Your task to perform on an android device: visit the assistant section in the google photos Image 0: 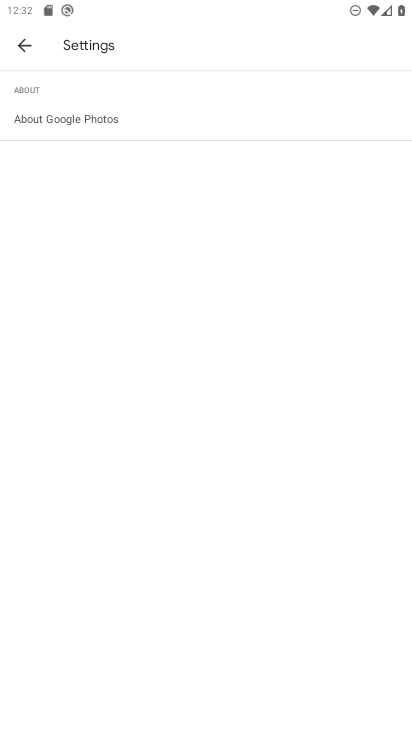
Step 0: press home button
Your task to perform on an android device: visit the assistant section in the google photos Image 1: 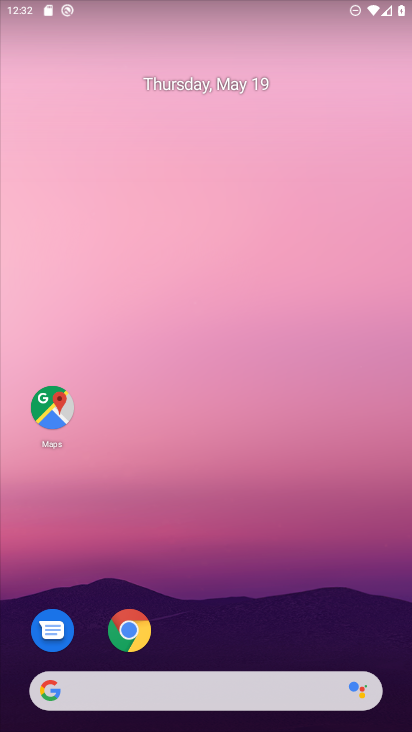
Step 1: drag from (257, 576) to (299, 153)
Your task to perform on an android device: visit the assistant section in the google photos Image 2: 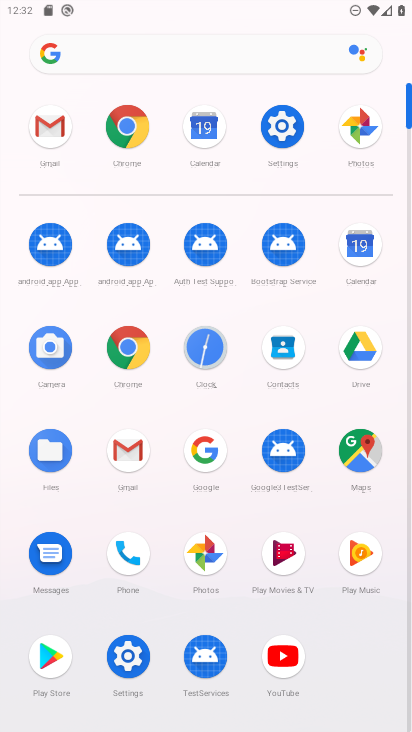
Step 2: click (204, 557)
Your task to perform on an android device: visit the assistant section in the google photos Image 3: 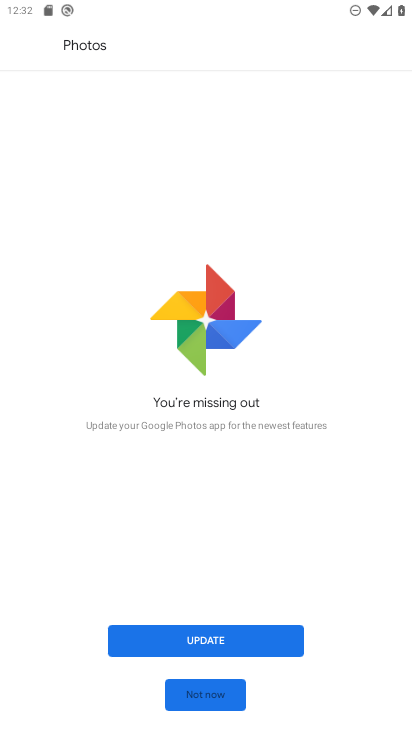
Step 3: click (236, 631)
Your task to perform on an android device: visit the assistant section in the google photos Image 4: 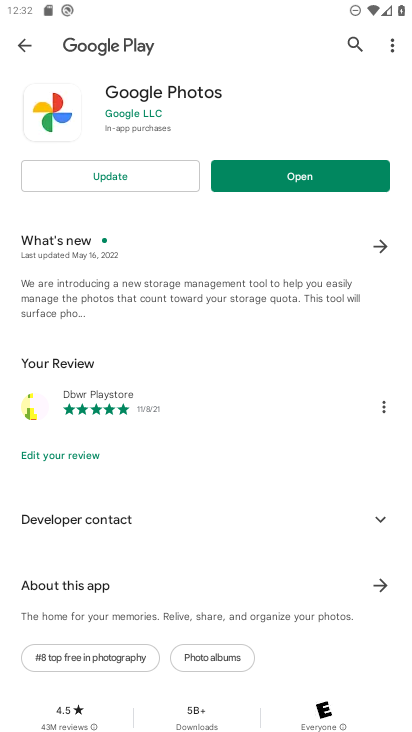
Step 4: click (162, 183)
Your task to perform on an android device: visit the assistant section in the google photos Image 5: 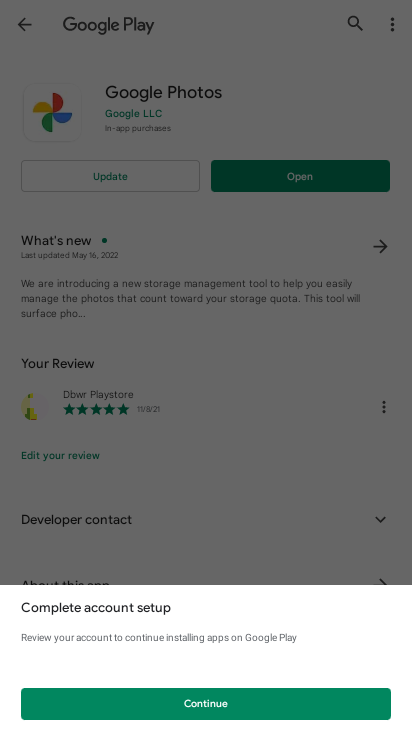
Step 5: click (223, 691)
Your task to perform on an android device: visit the assistant section in the google photos Image 6: 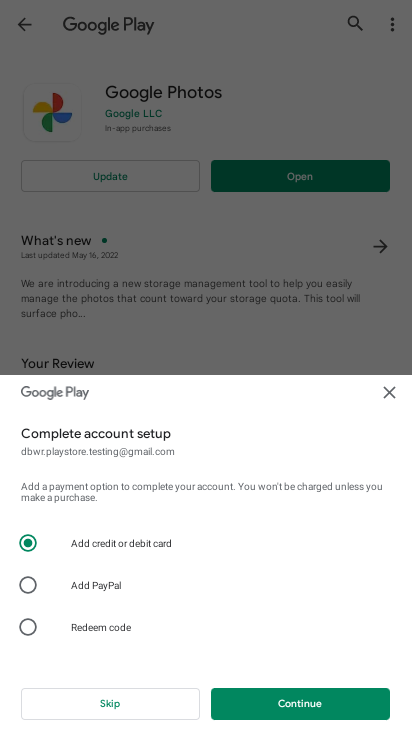
Step 6: click (387, 388)
Your task to perform on an android device: visit the assistant section in the google photos Image 7: 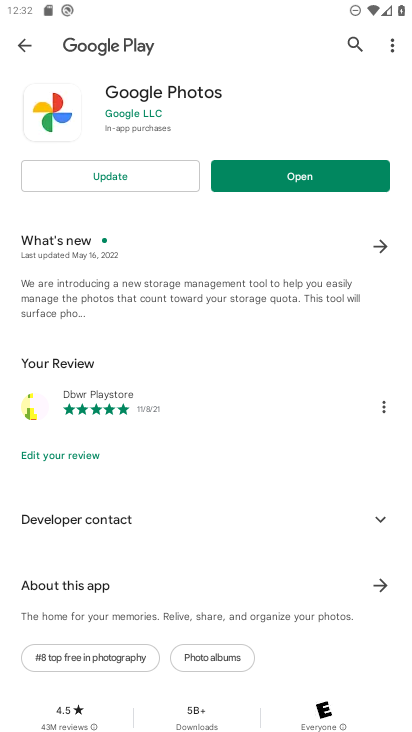
Step 7: click (123, 168)
Your task to perform on an android device: visit the assistant section in the google photos Image 8: 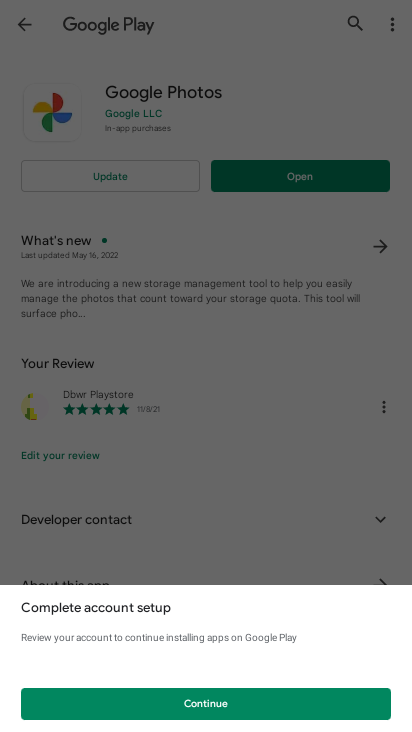
Step 8: click (295, 702)
Your task to perform on an android device: visit the assistant section in the google photos Image 9: 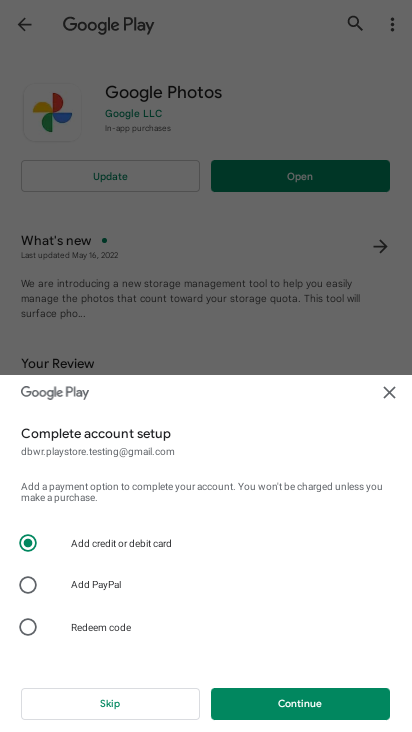
Step 9: click (144, 697)
Your task to perform on an android device: visit the assistant section in the google photos Image 10: 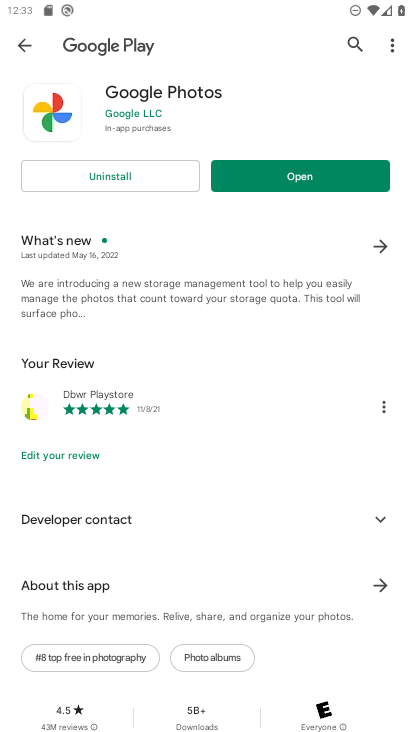
Step 10: click (320, 184)
Your task to perform on an android device: visit the assistant section in the google photos Image 11: 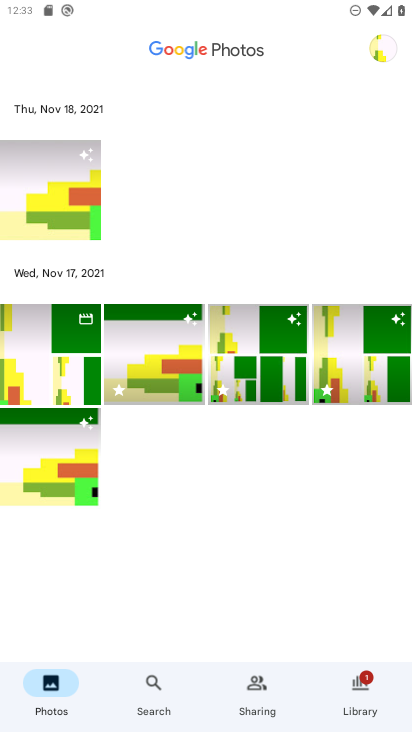
Step 11: click (142, 686)
Your task to perform on an android device: visit the assistant section in the google photos Image 12: 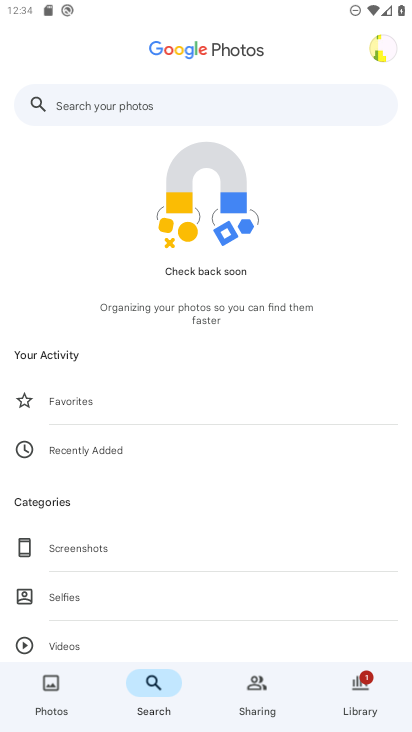
Step 12: click (140, 119)
Your task to perform on an android device: visit the assistant section in the google photos Image 13: 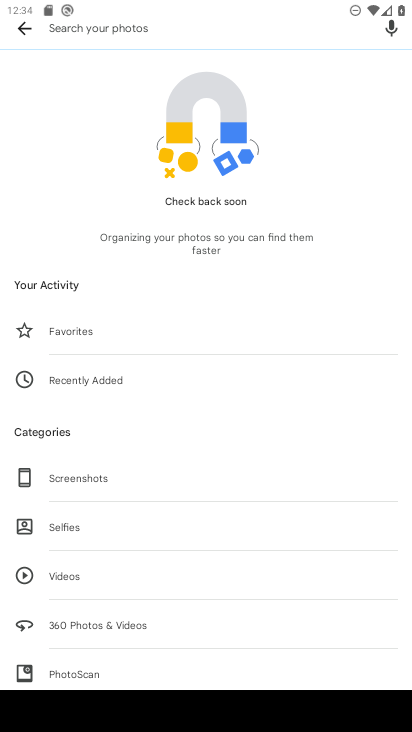
Step 13: type "assistant"
Your task to perform on an android device: visit the assistant section in the google photos Image 14: 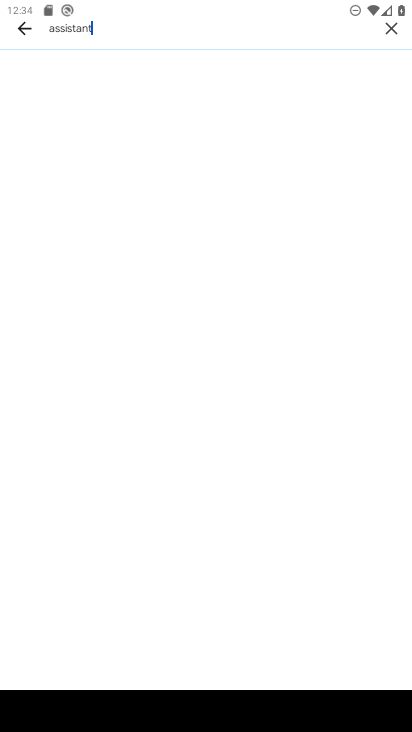
Step 14: task complete